Your task to perform on an android device: check google app version Image 0: 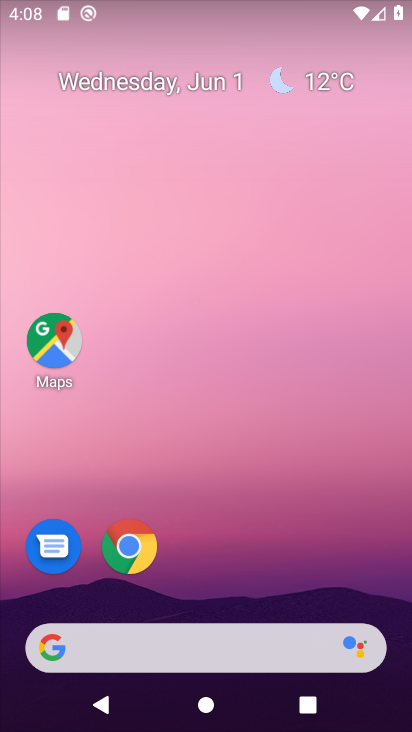
Step 0: drag from (199, 630) to (276, 197)
Your task to perform on an android device: check google app version Image 1: 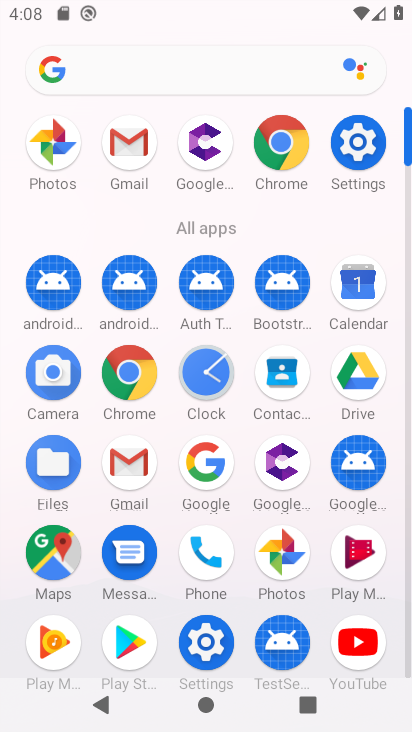
Step 1: drag from (204, 552) to (257, 332)
Your task to perform on an android device: check google app version Image 2: 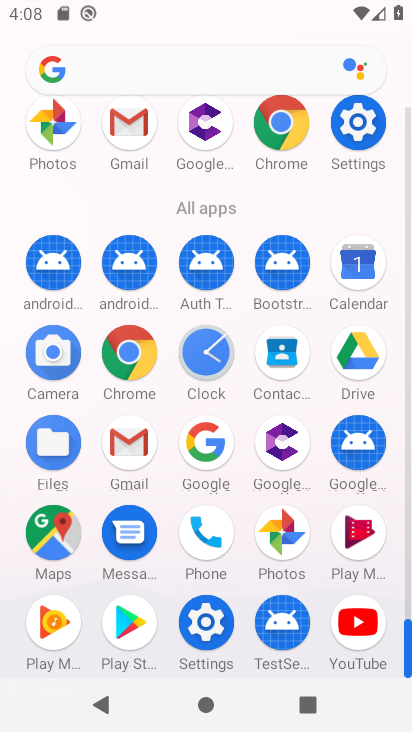
Step 2: click (202, 627)
Your task to perform on an android device: check google app version Image 3: 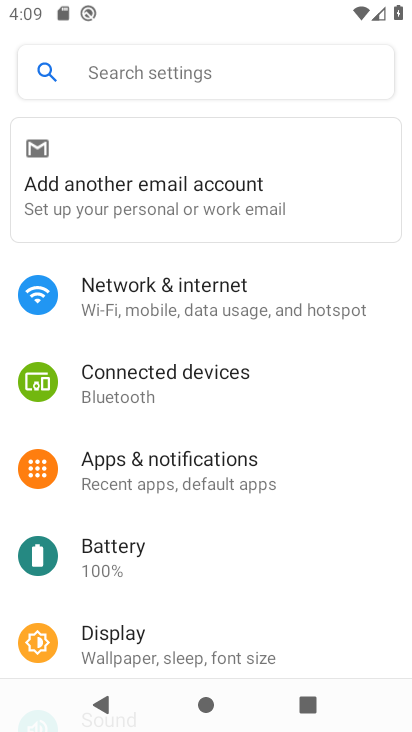
Step 3: drag from (193, 628) to (282, 307)
Your task to perform on an android device: check google app version Image 4: 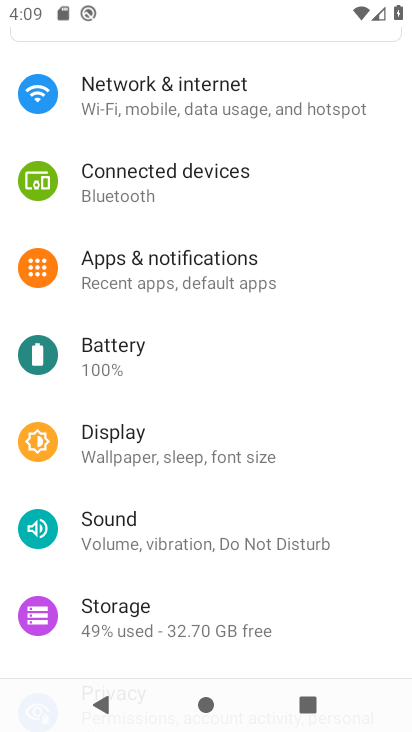
Step 4: click (212, 268)
Your task to perform on an android device: check google app version Image 5: 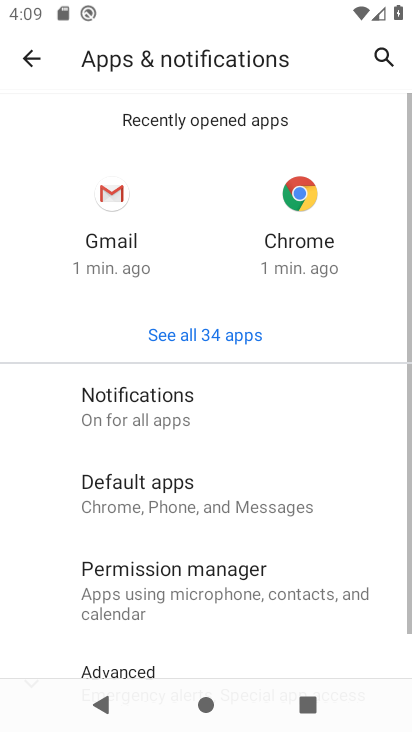
Step 5: click (238, 336)
Your task to perform on an android device: check google app version Image 6: 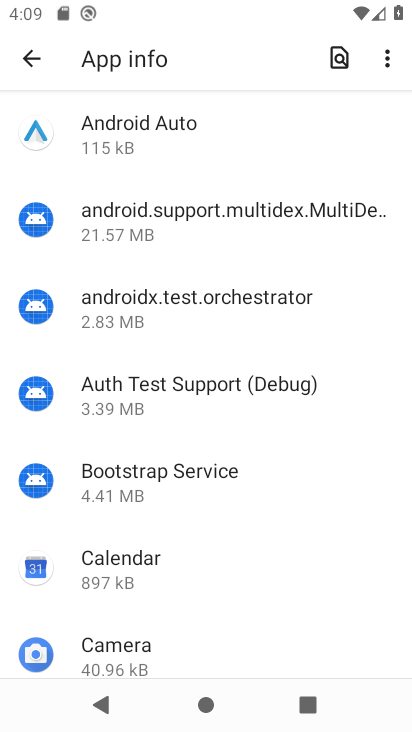
Step 6: drag from (166, 640) to (258, 236)
Your task to perform on an android device: check google app version Image 7: 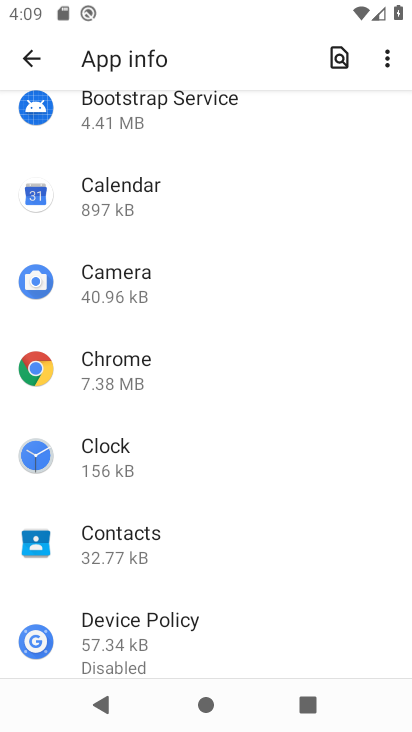
Step 7: drag from (205, 557) to (285, 199)
Your task to perform on an android device: check google app version Image 8: 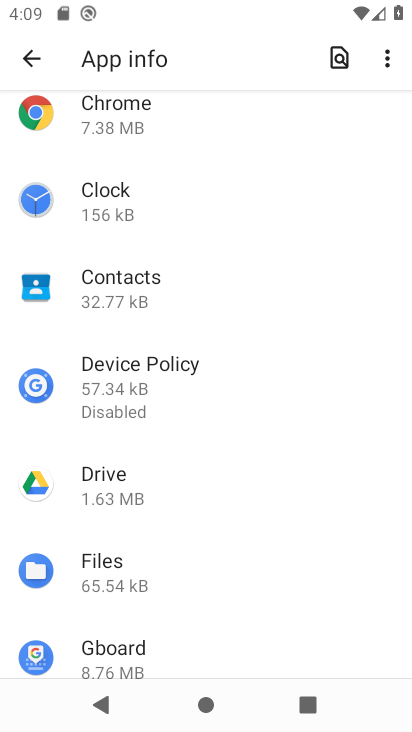
Step 8: drag from (158, 608) to (229, 299)
Your task to perform on an android device: check google app version Image 9: 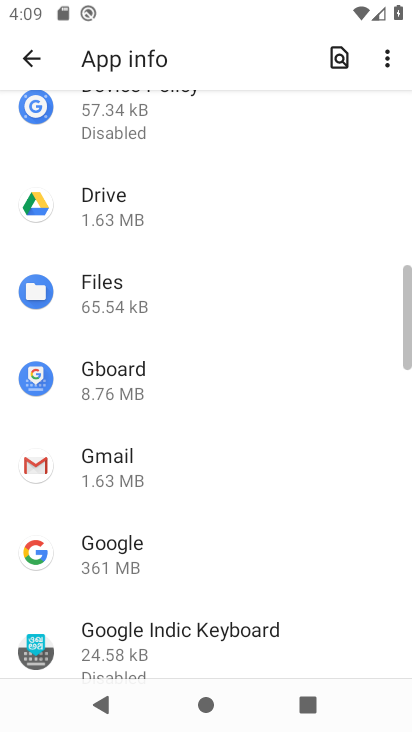
Step 9: click (154, 545)
Your task to perform on an android device: check google app version Image 10: 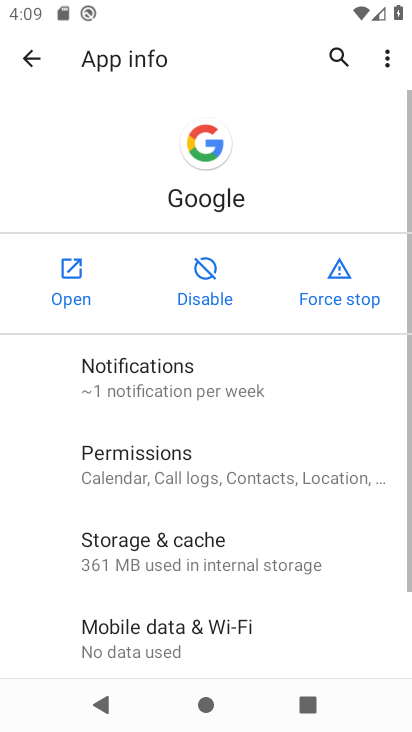
Step 10: drag from (214, 648) to (319, 244)
Your task to perform on an android device: check google app version Image 11: 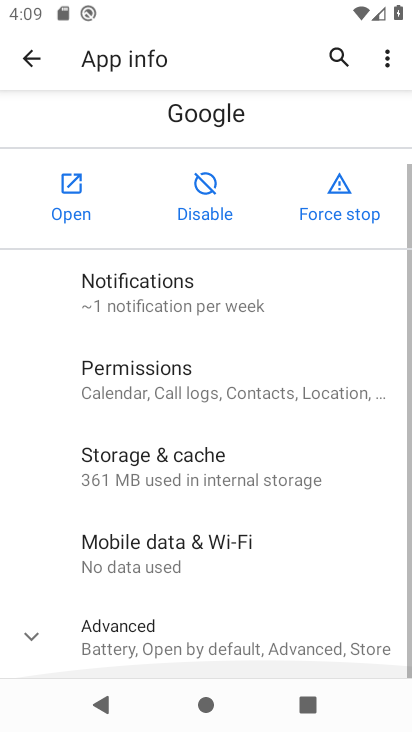
Step 11: click (212, 636)
Your task to perform on an android device: check google app version Image 12: 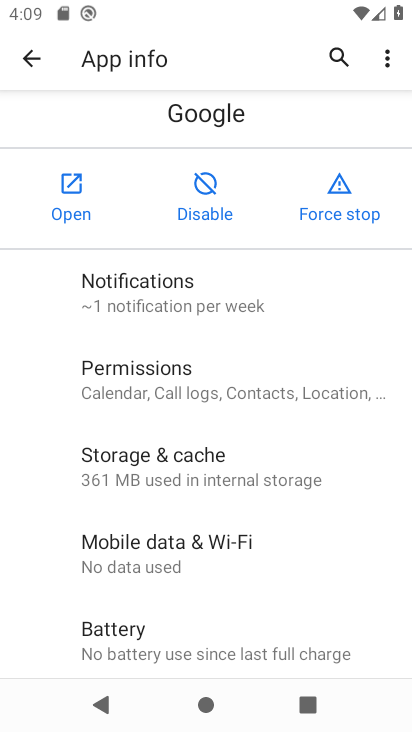
Step 12: task complete